Your task to perform on an android device: search for starred emails in the gmail app Image 0: 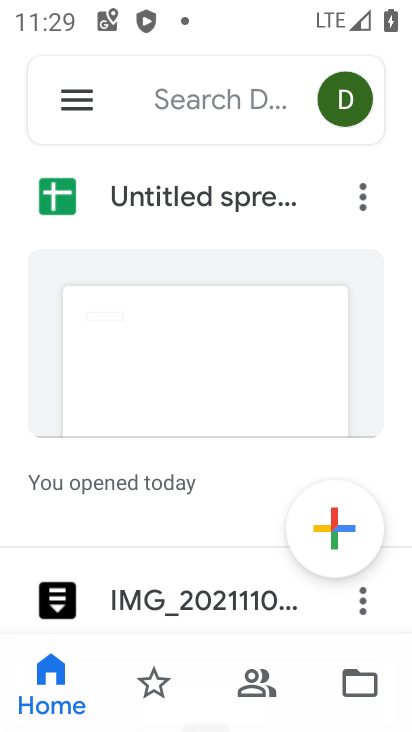
Step 0: press home button
Your task to perform on an android device: search for starred emails in the gmail app Image 1: 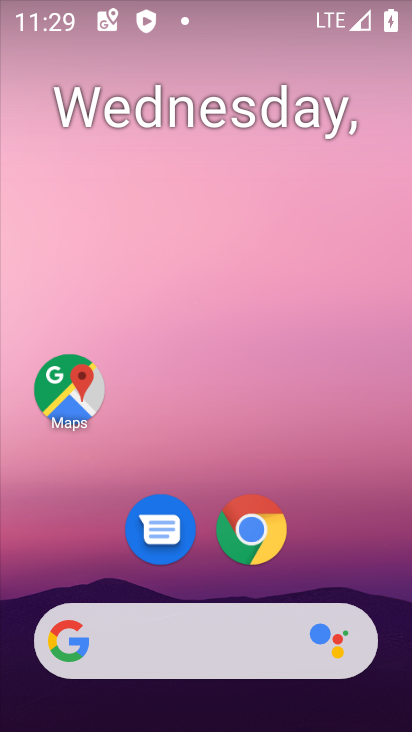
Step 1: drag from (192, 596) to (294, 3)
Your task to perform on an android device: search for starred emails in the gmail app Image 2: 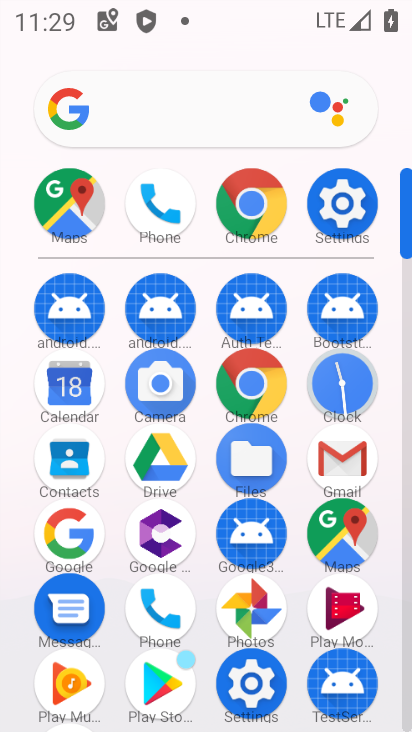
Step 2: click (361, 448)
Your task to perform on an android device: search for starred emails in the gmail app Image 3: 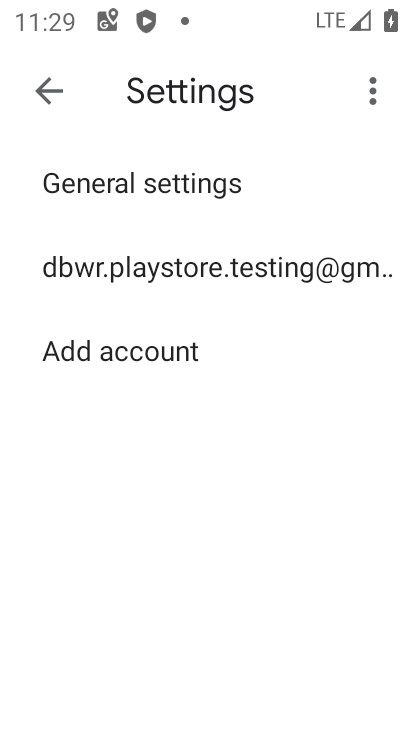
Step 3: press home button
Your task to perform on an android device: search for starred emails in the gmail app Image 4: 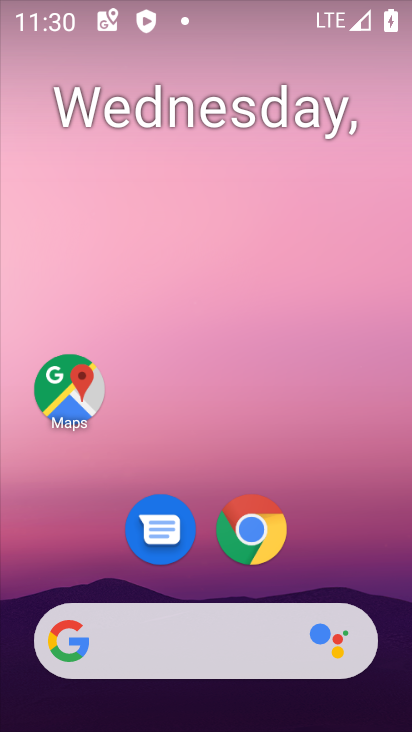
Step 4: drag from (216, 599) to (217, 76)
Your task to perform on an android device: search for starred emails in the gmail app Image 5: 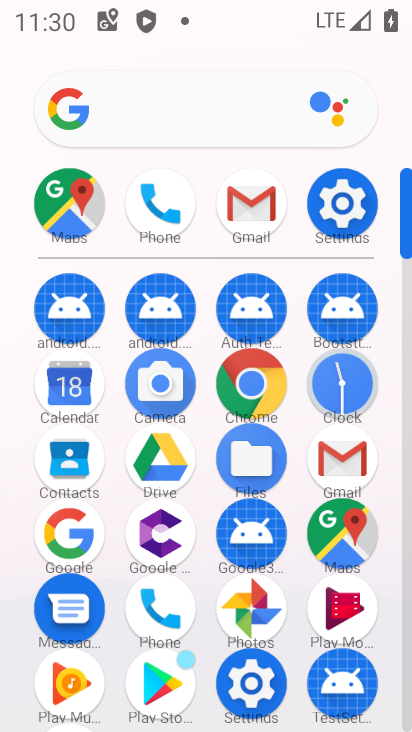
Step 5: click (345, 465)
Your task to perform on an android device: search for starred emails in the gmail app Image 6: 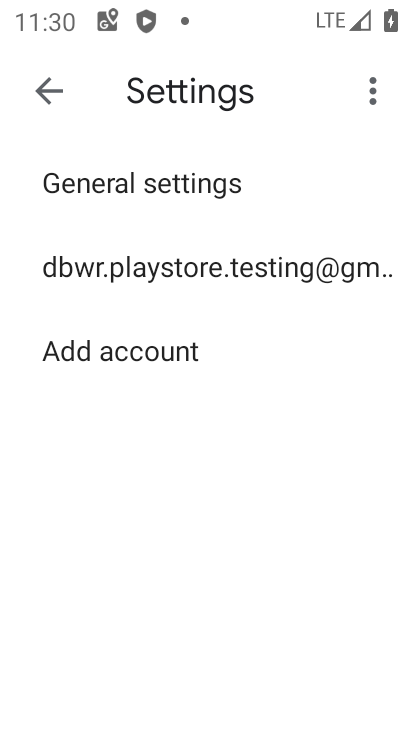
Step 6: click (40, 87)
Your task to perform on an android device: search for starred emails in the gmail app Image 7: 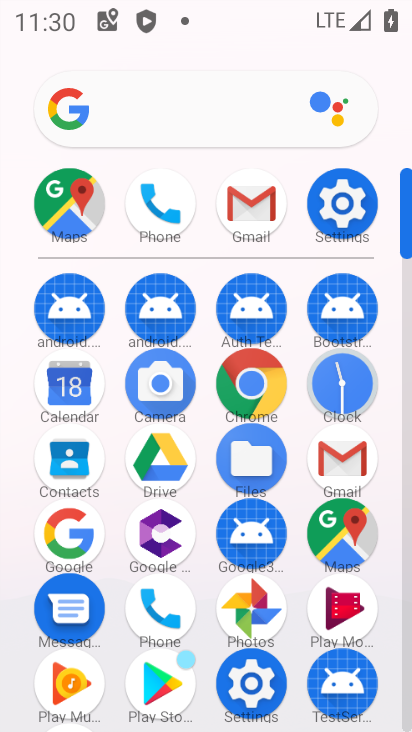
Step 7: click (241, 210)
Your task to perform on an android device: search for starred emails in the gmail app Image 8: 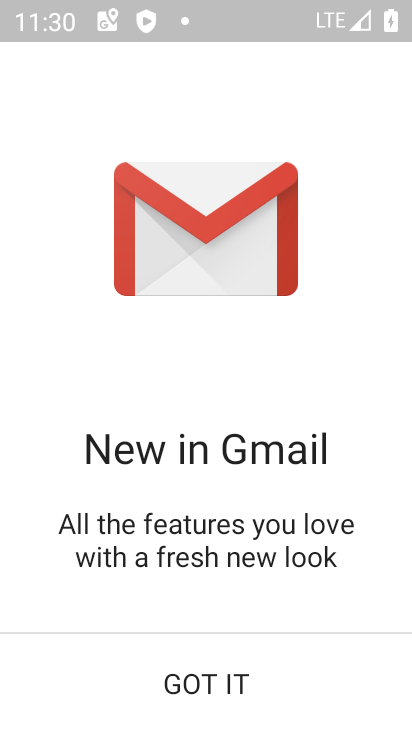
Step 8: click (212, 663)
Your task to perform on an android device: search for starred emails in the gmail app Image 9: 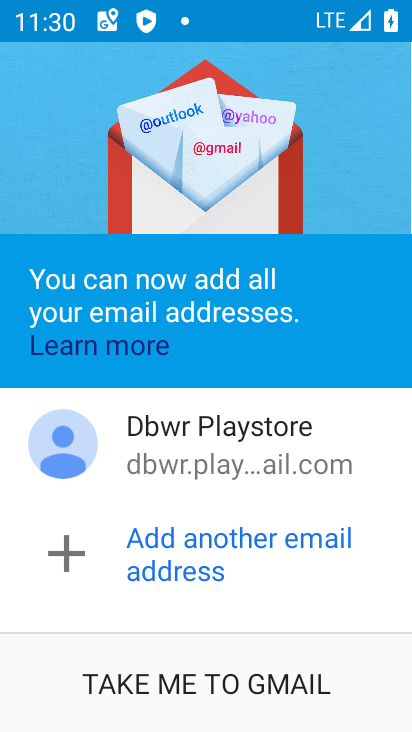
Step 9: click (254, 658)
Your task to perform on an android device: search for starred emails in the gmail app Image 10: 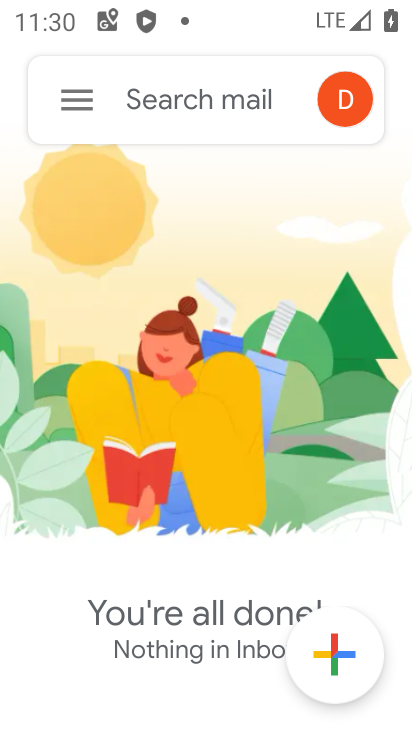
Step 10: click (149, 102)
Your task to perform on an android device: search for starred emails in the gmail app Image 11: 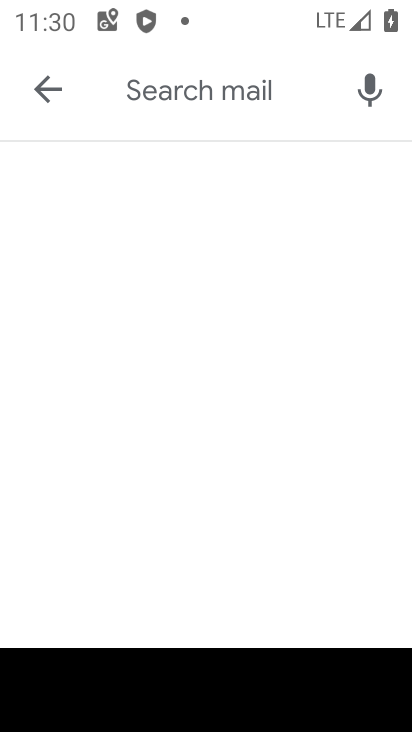
Step 11: click (46, 98)
Your task to perform on an android device: search for starred emails in the gmail app Image 12: 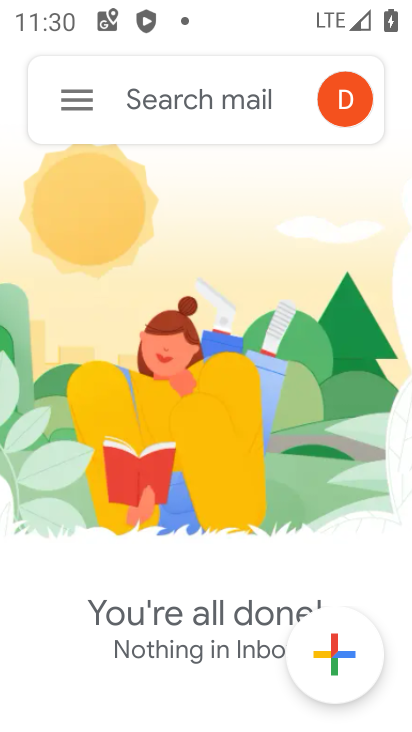
Step 12: task complete